Your task to perform on an android device: change the clock display to digital Image 0: 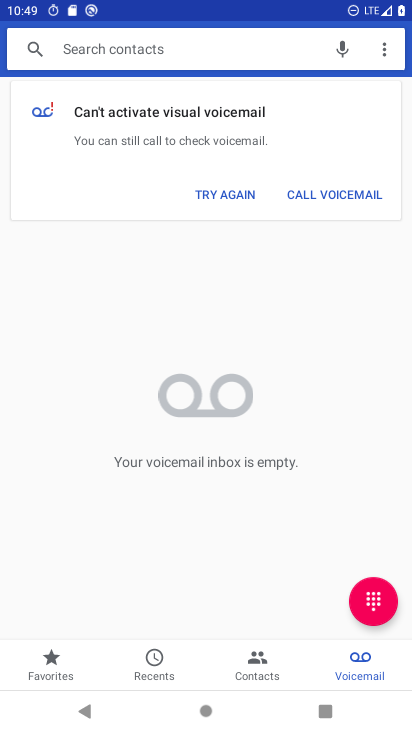
Step 0: press home button
Your task to perform on an android device: change the clock display to digital Image 1: 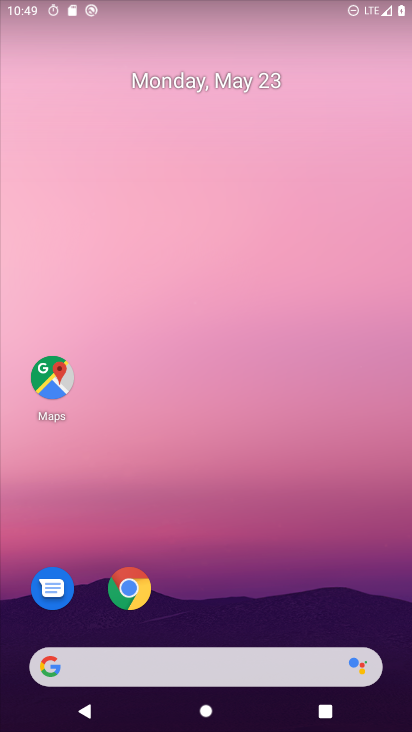
Step 1: drag from (402, 657) to (402, 183)
Your task to perform on an android device: change the clock display to digital Image 2: 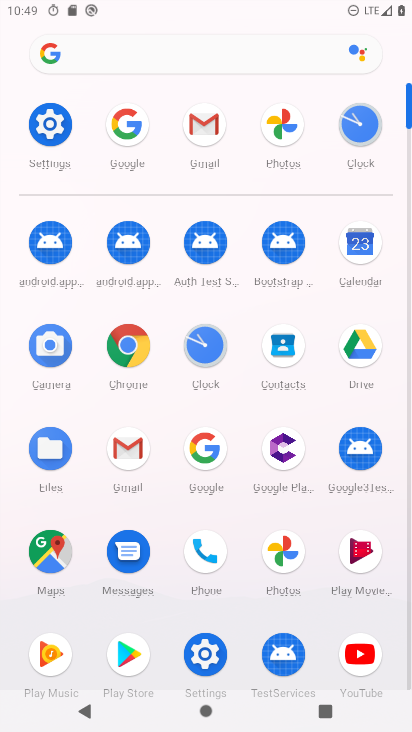
Step 2: click (24, 119)
Your task to perform on an android device: change the clock display to digital Image 3: 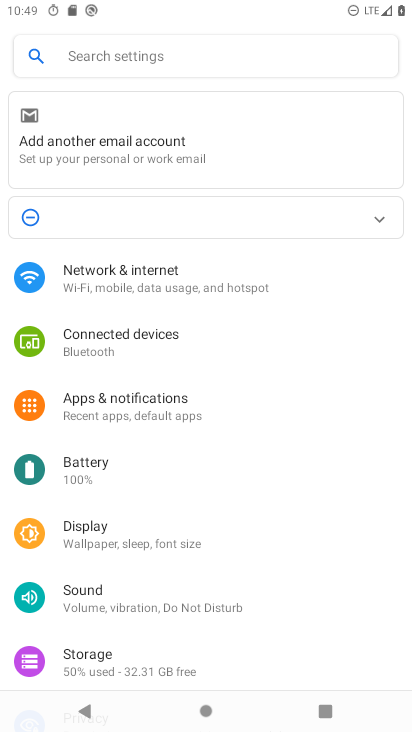
Step 3: press home button
Your task to perform on an android device: change the clock display to digital Image 4: 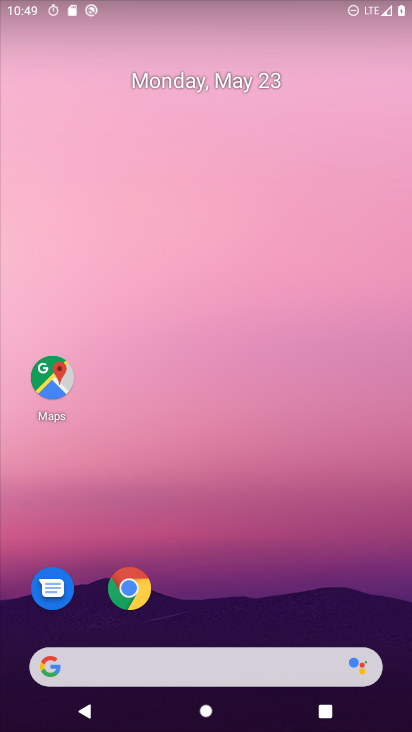
Step 4: drag from (393, 700) to (352, 132)
Your task to perform on an android device: change the clock display to digital Image 5: 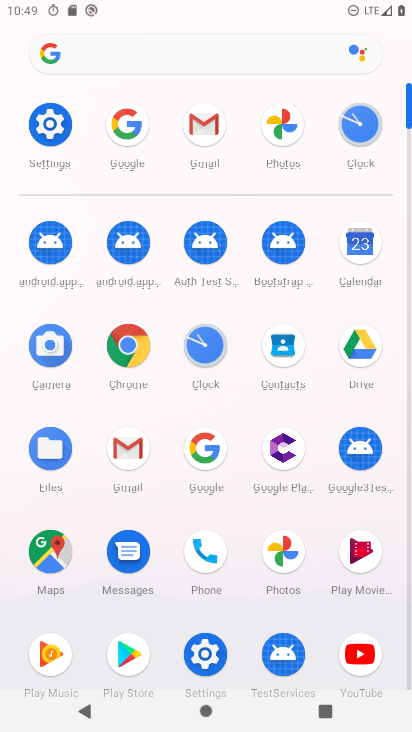
Step 5: click (198, 348)
Your task to perform on an android device: change the clock display to digital Image 6: 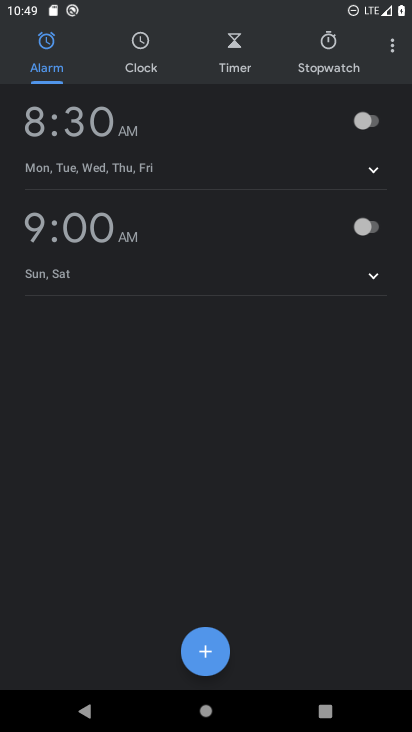
Step 6: click (390, 46)
Your task to perform on an android device: change the clock display to digital Image 7: 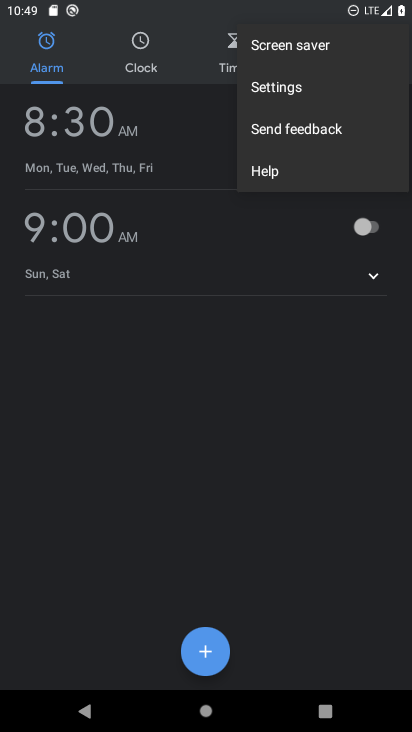
Step 7: click (293, 86)
Your task to perform on an android device: change the clock display to digital Image 8: 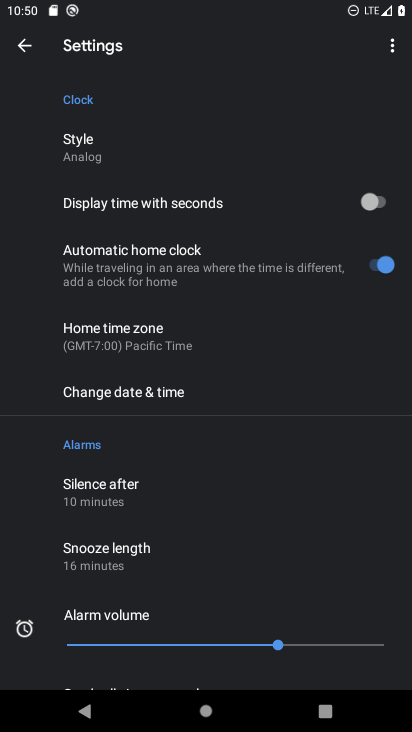
Step 8: click (77, 142)
Your task to perform on an android device: change the clock display to digital Image 9: 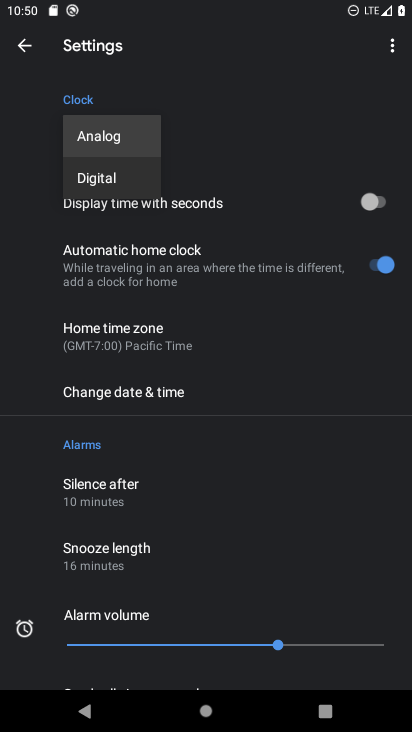
Step 9: click (95, 173)
Your task to perform on an android device: change the clock display to digital Image 10: 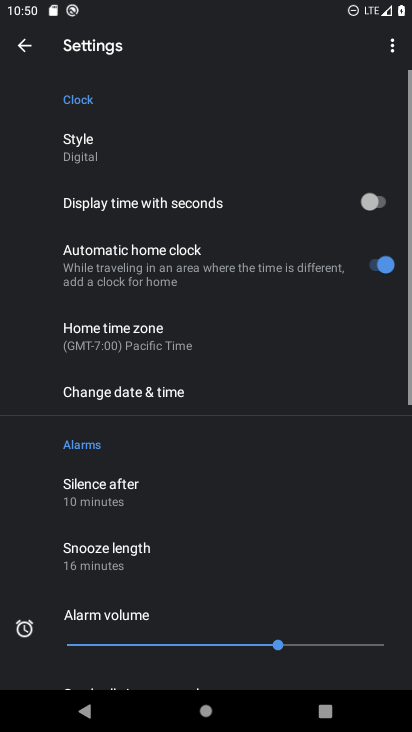
Step 10: task complete